Your task to perform on an android device: set an alarm Image 0: 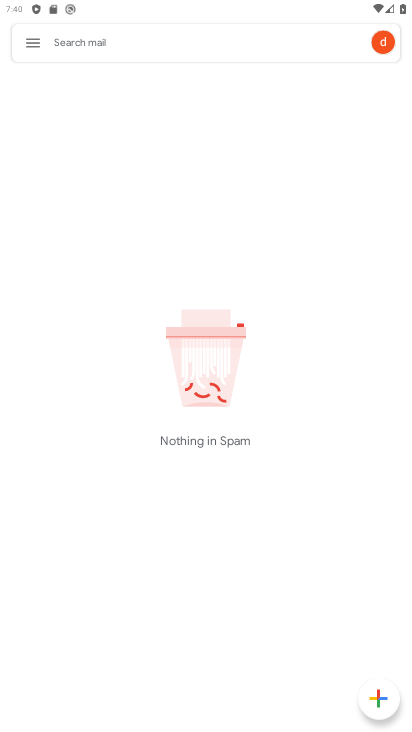
Step 0: press home button
Your task to perform on an android device: set an alarm Image 1: 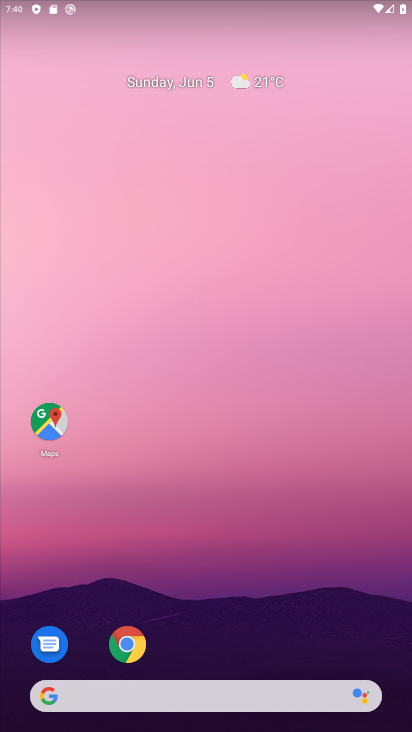
Step 1: drag from (82, 440) to (229, 103)
Your task to perform on an android device: set an alarm Image 2: 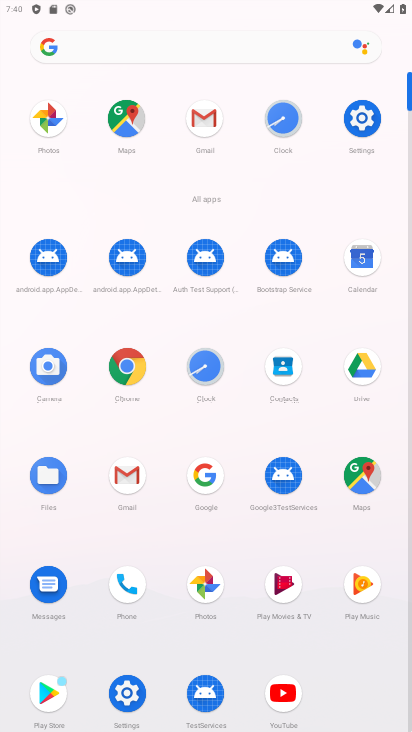
Step 2: click (272, 117)
Your task to perform on an android device: set an alarm Image 3: 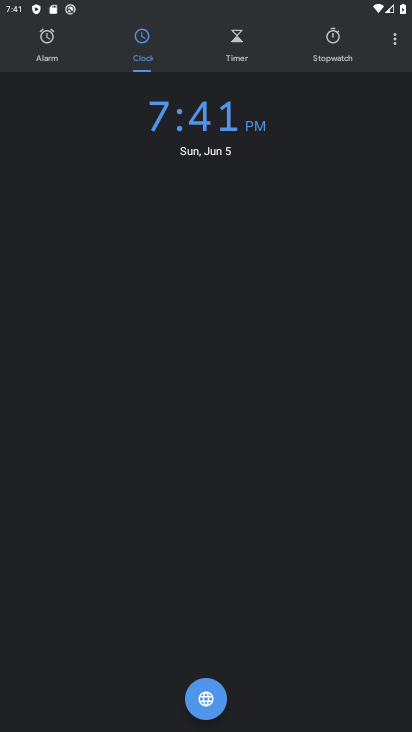
Step 3: click (43, 54)
Your task to perform on an android device: set an alarm Image 4: 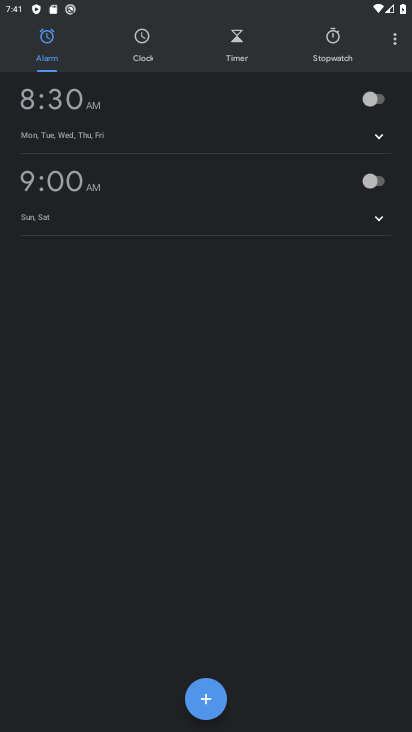
Step 4: click (195, 714)
Your task to perform on an android device: set an alarm Image 5: 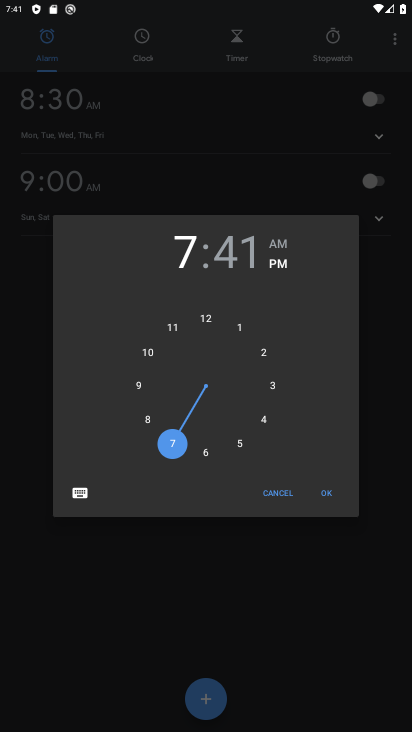
Step 5: click (324, 492)
Your task to perform on an android device: set an alarm Image 6: 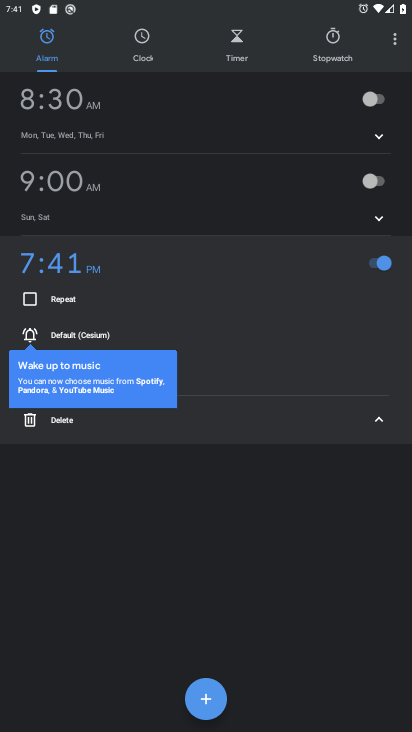
Step 6: task complete